Your task to perform on an android device: Go to settings Image 0: 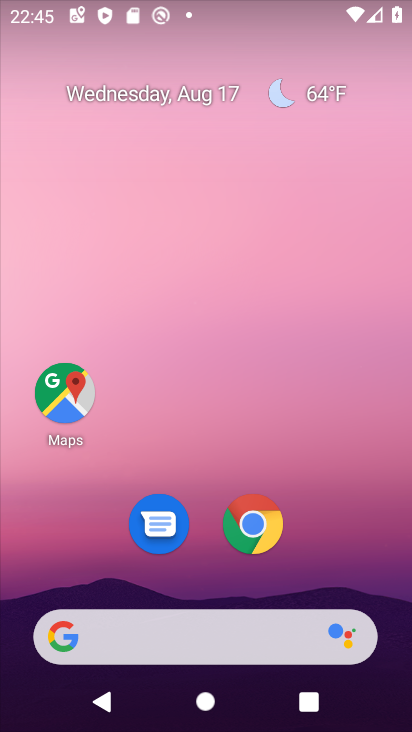
Step 0: drag from (319, 511) to (336, 0)
Your task to perform on an android device: Go to settings Image 1: 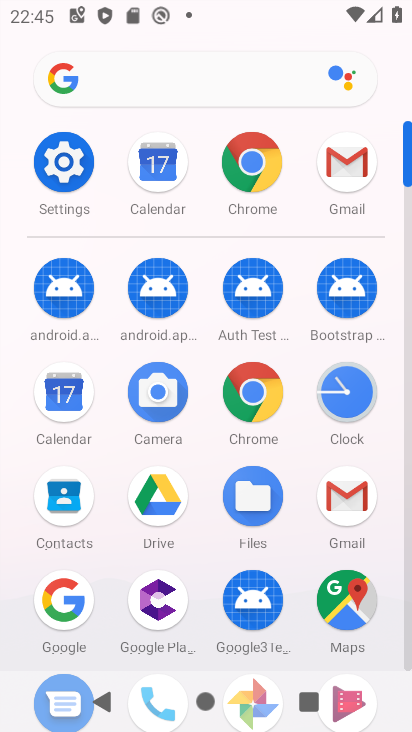
Step 1: click (58, 156)
Your task to perform on an android device: Go to settings Image 2: 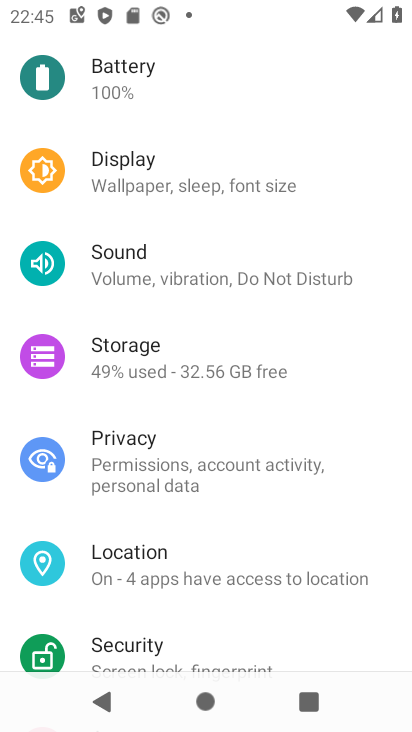
Step 2: task complete